Your task to perform on an android device: add a contact Image 0: 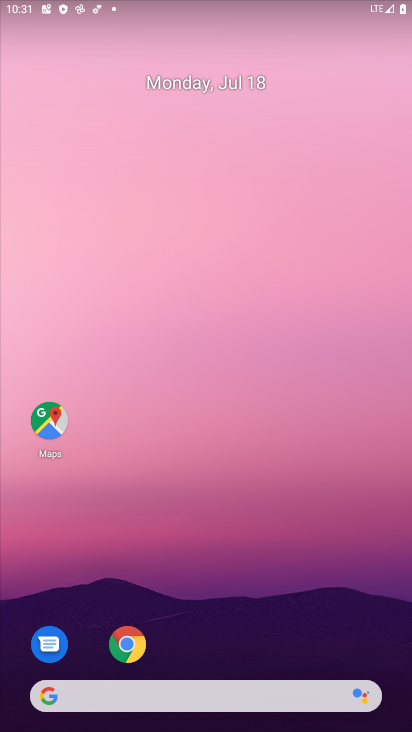
Step 0: drag from (321, 615) to (350, 144)
Your task to perform on an android device: add a contact Image 1: 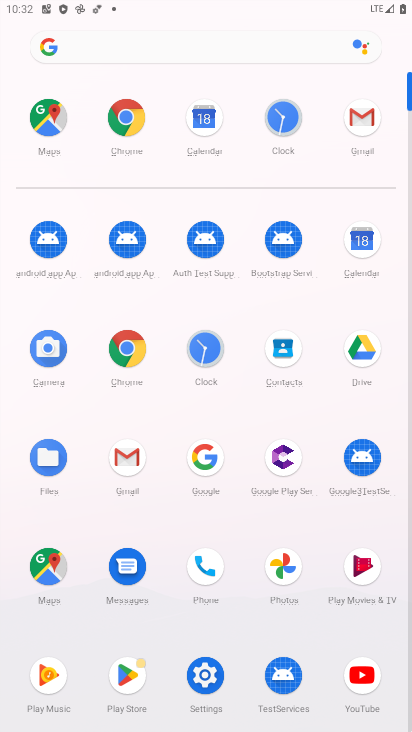
Step 1: click (291, 354)
Your task to perform on an android device: add a contact Image 2: 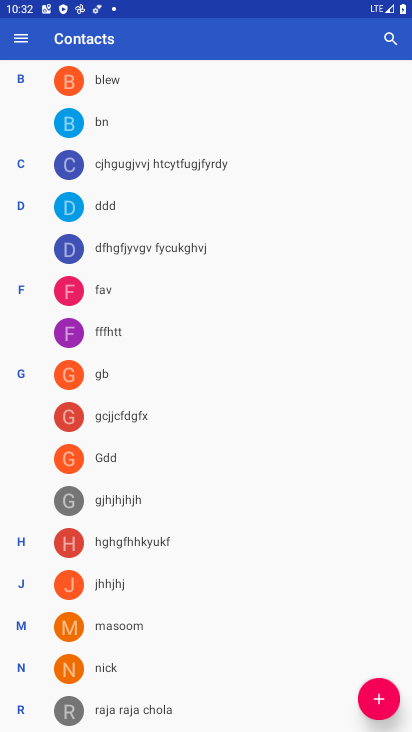
Step 2: click (379, 700)
Your task to perform on an android device: add a contact Image 3: 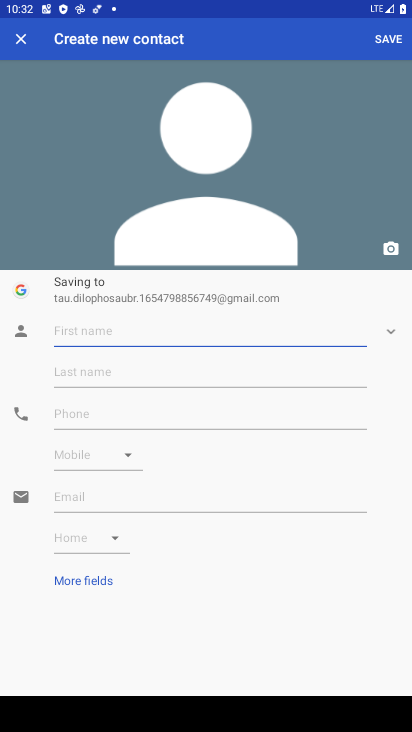
Step 3: type "lololo"
Your task to perform on an android device: add a contact Image 4: 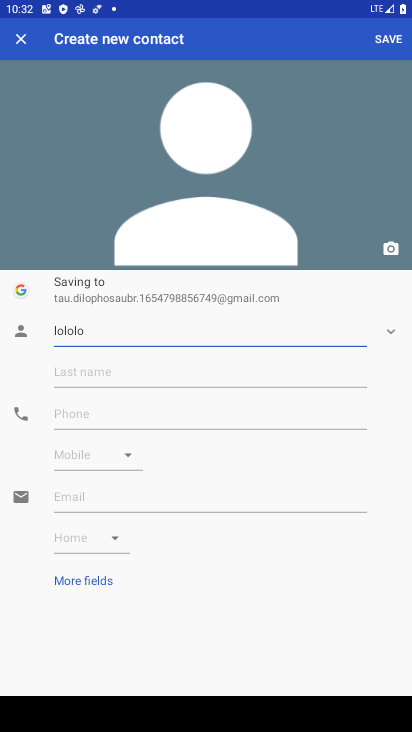
Step 4: click (202, 410)
Your task to perform on an android device: add a contact Image 5: 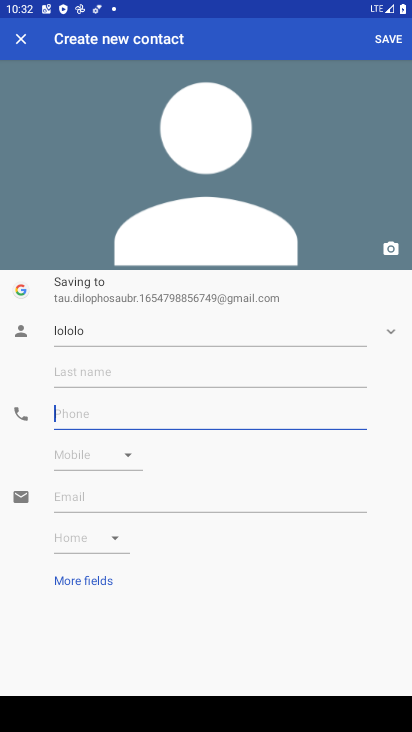
Step 5: type "1234567890"
Your task to perform on an android device: add a contact Image 6: 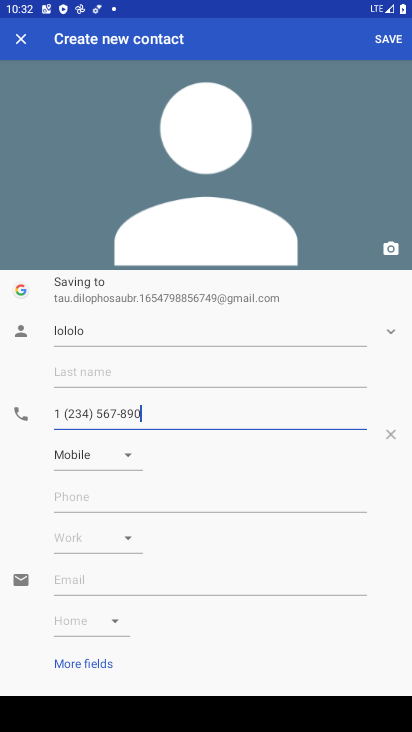
Step 6: click (380, 41)
Your task to perform on an android device: add a contact Image 7: 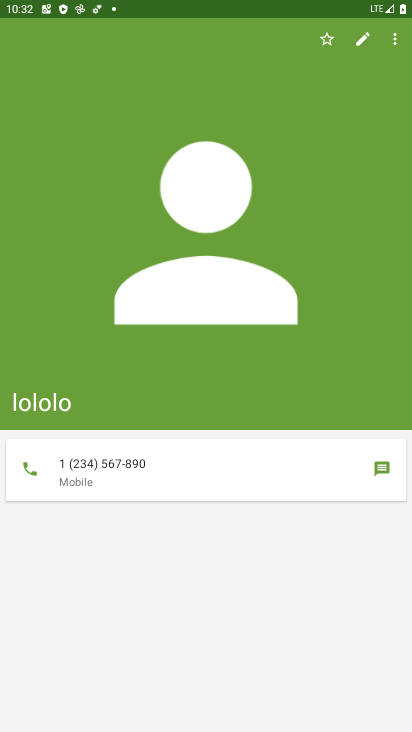
Step 7: task complete